Your task to perform on an android device: Is it going to rain today? Image 0: 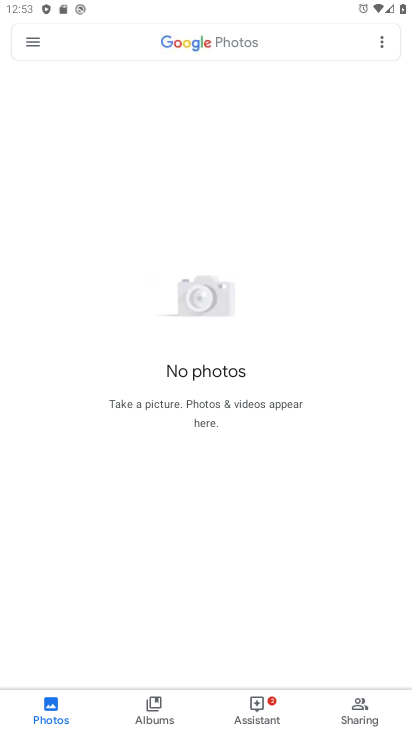
Step 0: press home button
Your task to perform on an android device: Is it going to rain today? Image 1: 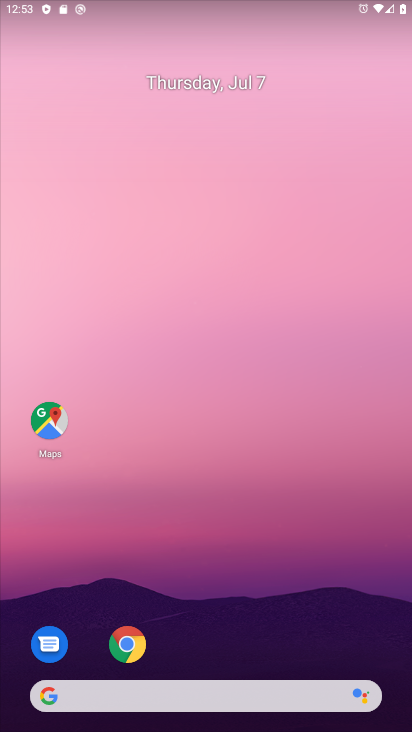
Step 1: click (154, 679)
Your task to perform on an android device: Is it going to rain today? Image 2: 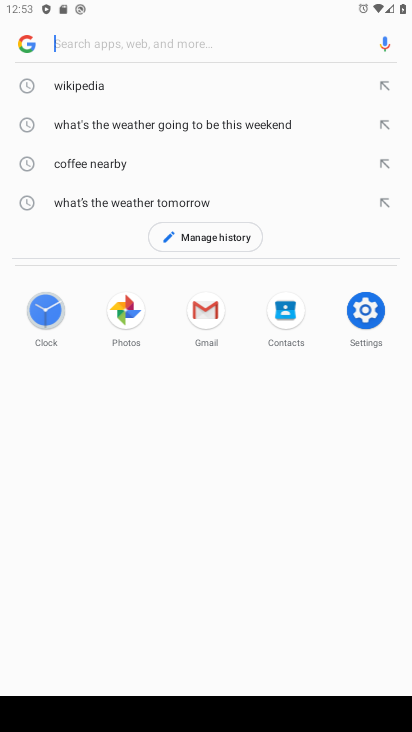
Step 2: type "Is it going to rain today?"
Your task to perform on an android device: Is it going to rain today? Image 3: 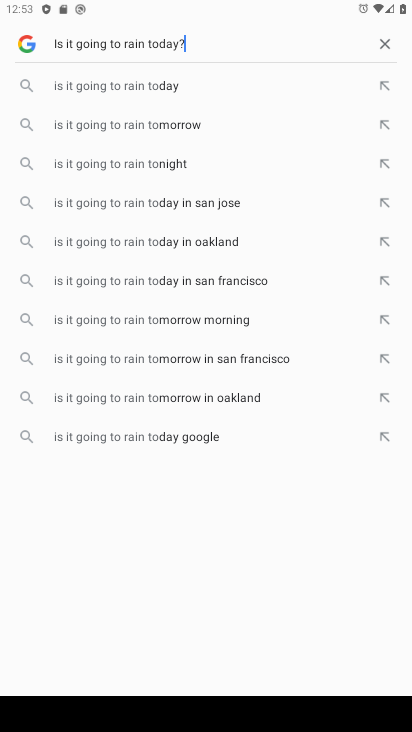
Step 3: type ""
Your task to perform on an android device: Is it going to rain today? Image 4: 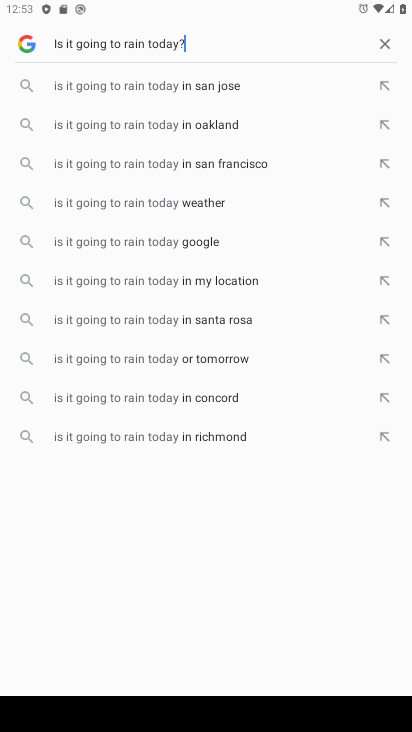
Step 4: type ""
Your task to perform on an android device: Is it going to rain today? Image 5: 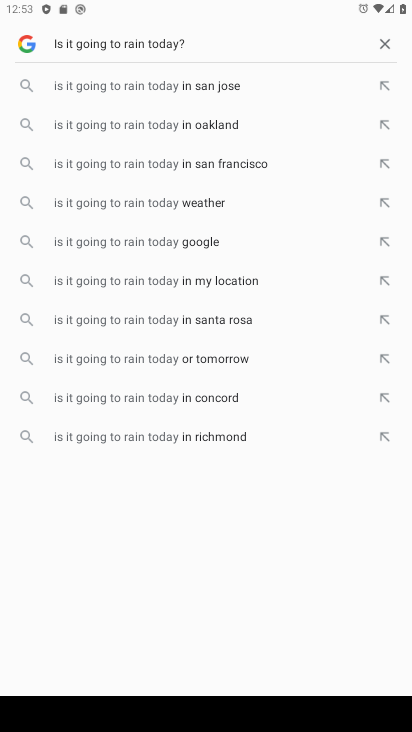
Step 5: type ""
Your task to perform on an android device: Is it going to rain today? Image 6: 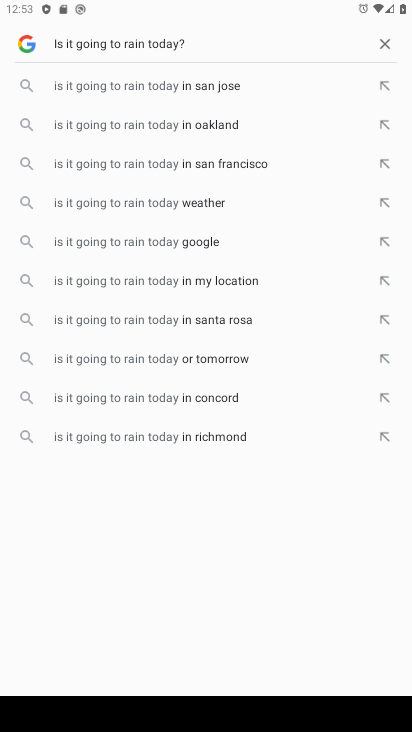
Step 6: type ""
Your task to perform on an android device: Is it going to rain today? Image 7: 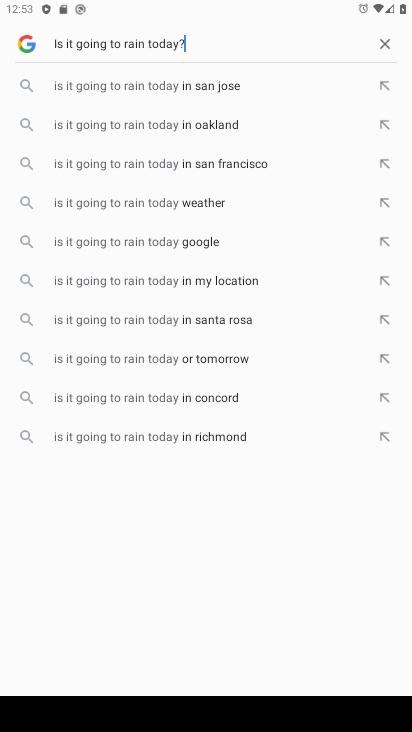
Step 7: click (206, 37)
Your task to perform on an android device: Is it going to rain today? Image 8: 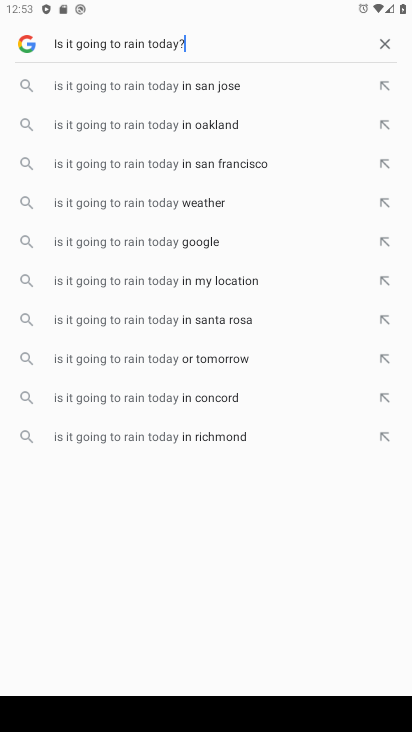
Step 8: click (209, 44)
Your task to perform on an android device: Is it going to rain today? Image 9: 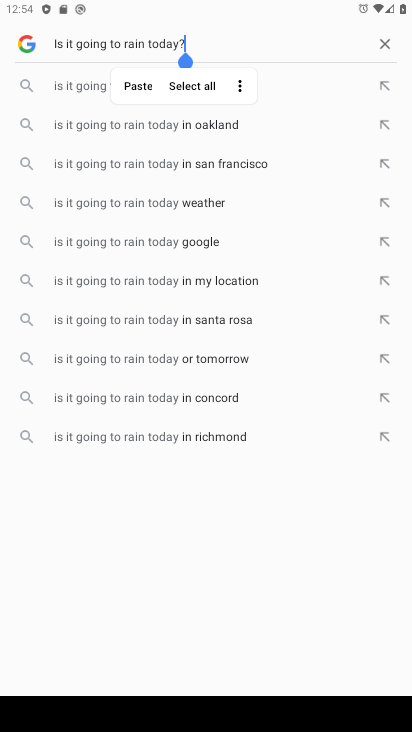
Step 9: type "   "
Your task to perform on an android device: Is it going to rain today? Image 10: 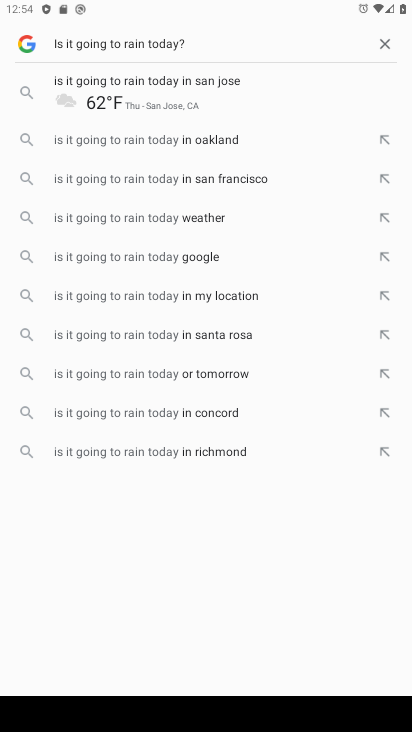
Step 10: task complete